Your task to perform on an android device: turn off picture-in-picture Image 0: 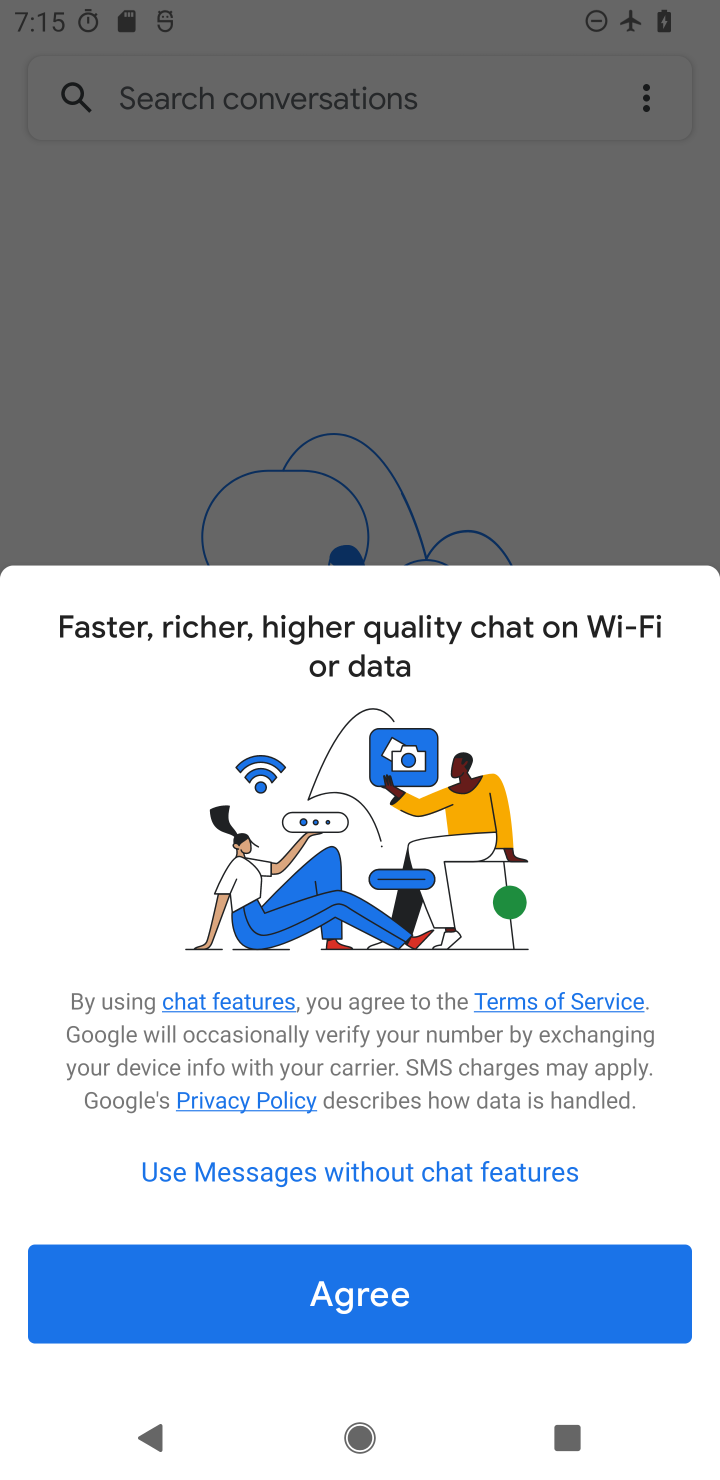
Step 0: press home button
Your task to perform on an android device: turn off picture-in-picture Image 1: 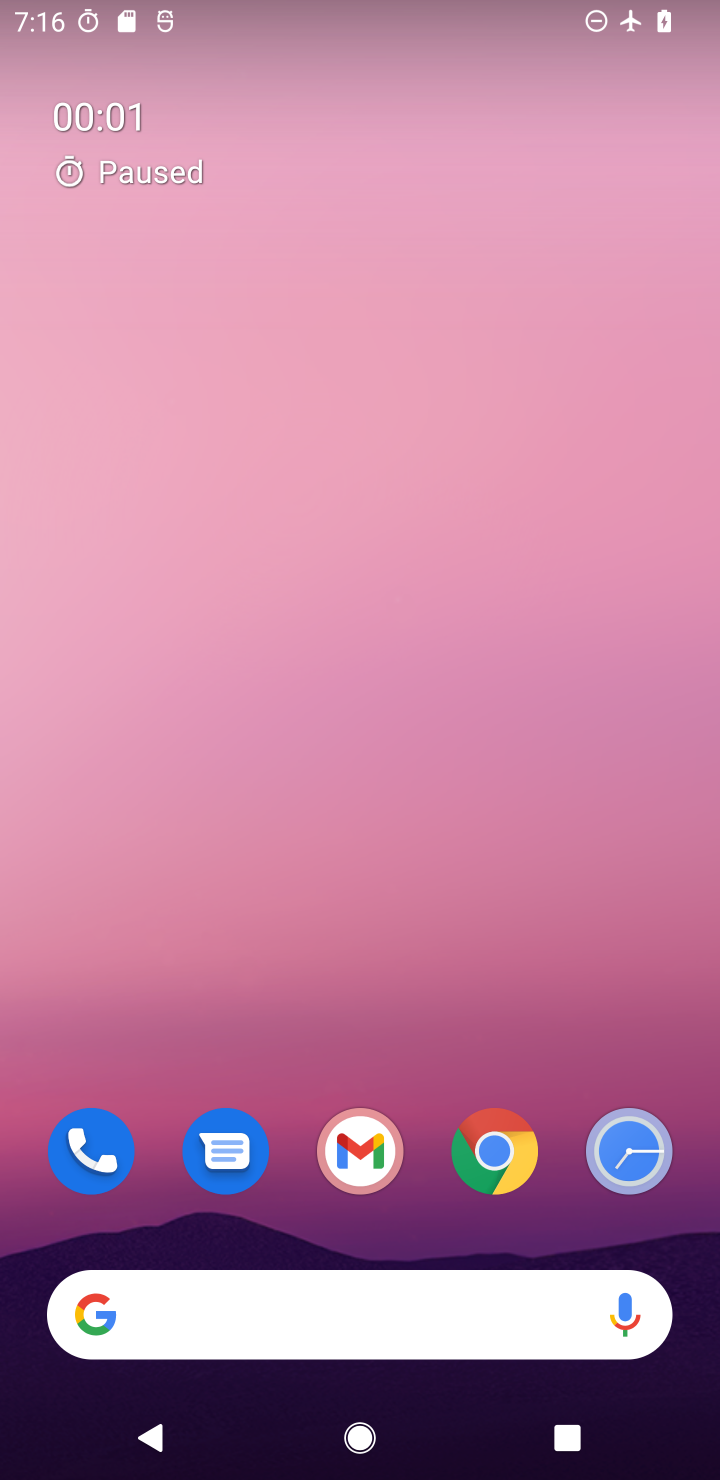
Step 1: click (488, 1154)
Your task to perform on an android device: turn off picture-in-picture Image 2: 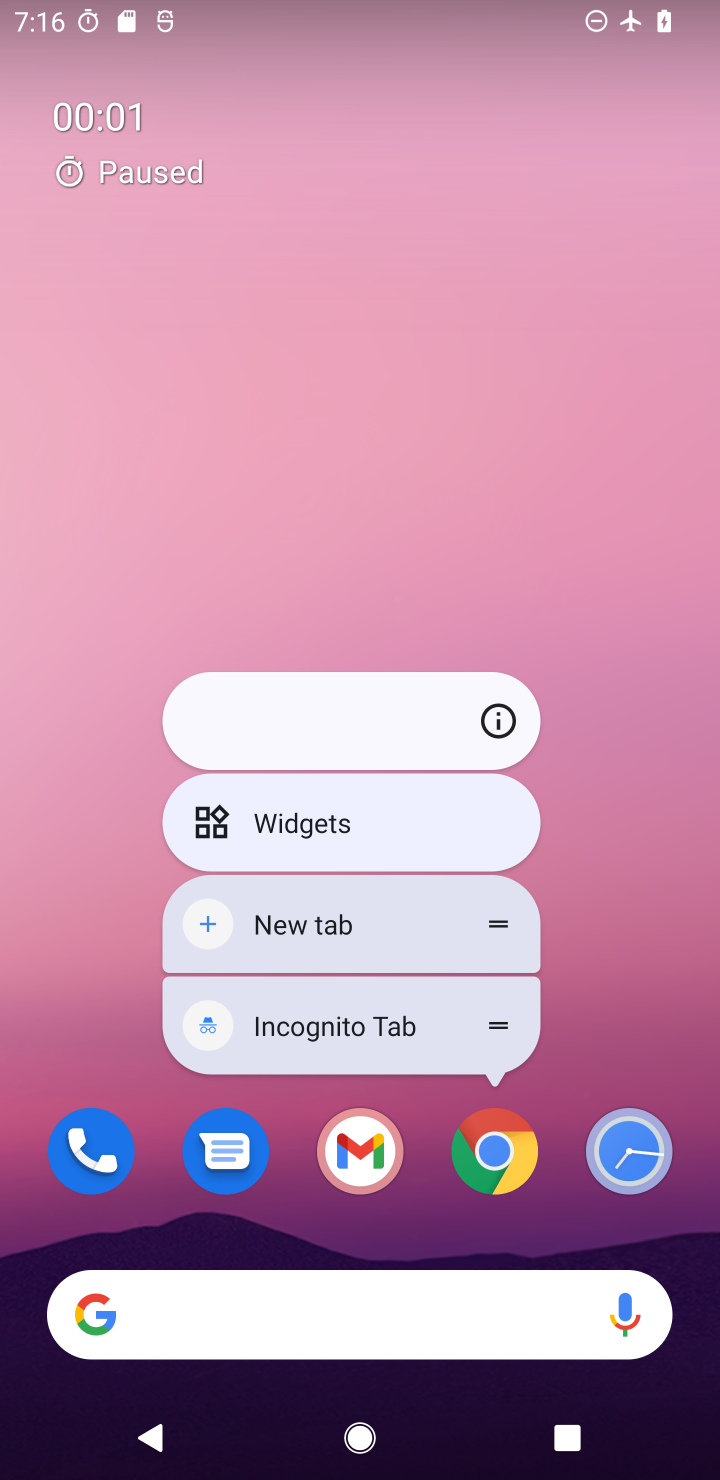
Step 2: click (507, 717)
Your task to perform on an android device: turn off picture-in-picture Image 3: 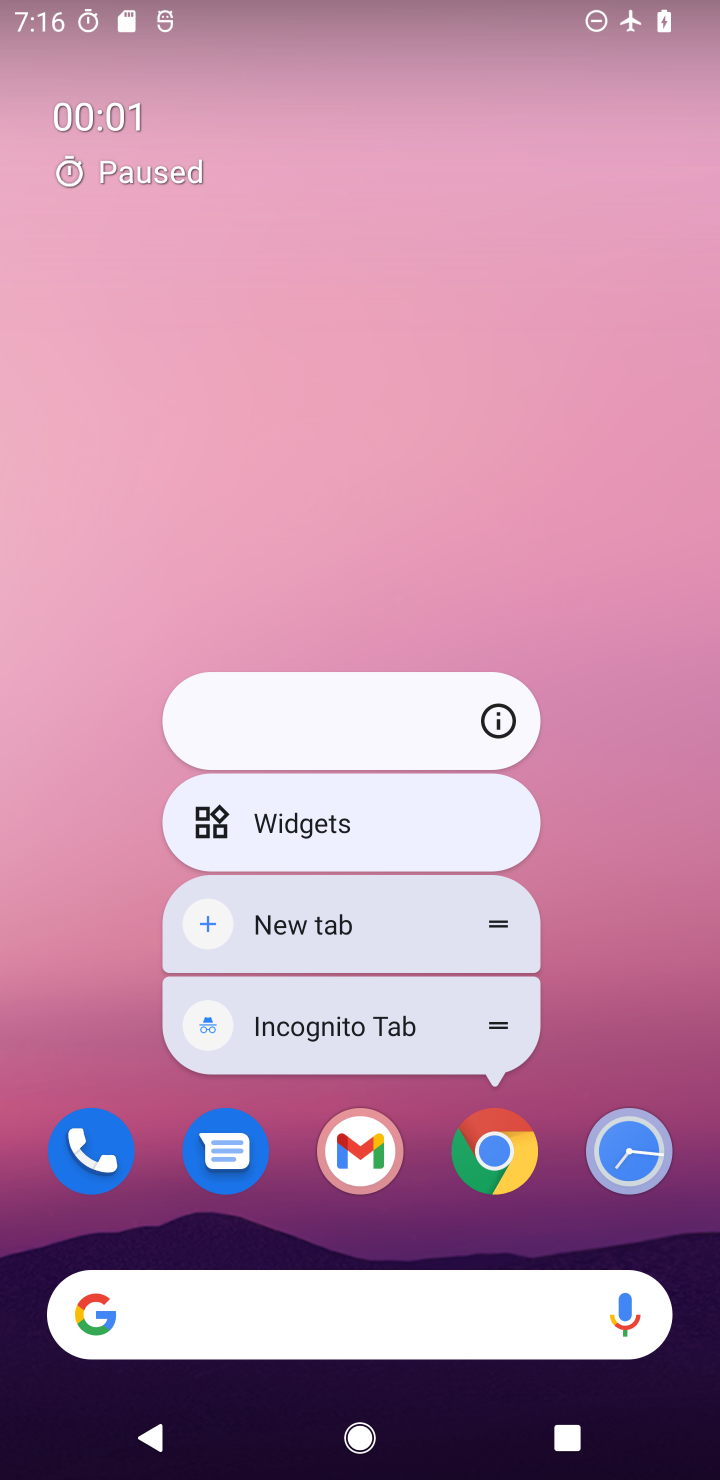
Step 3: click (507, 717)
Your task to perform on an android device: turn off picture-in-picture Image 4: 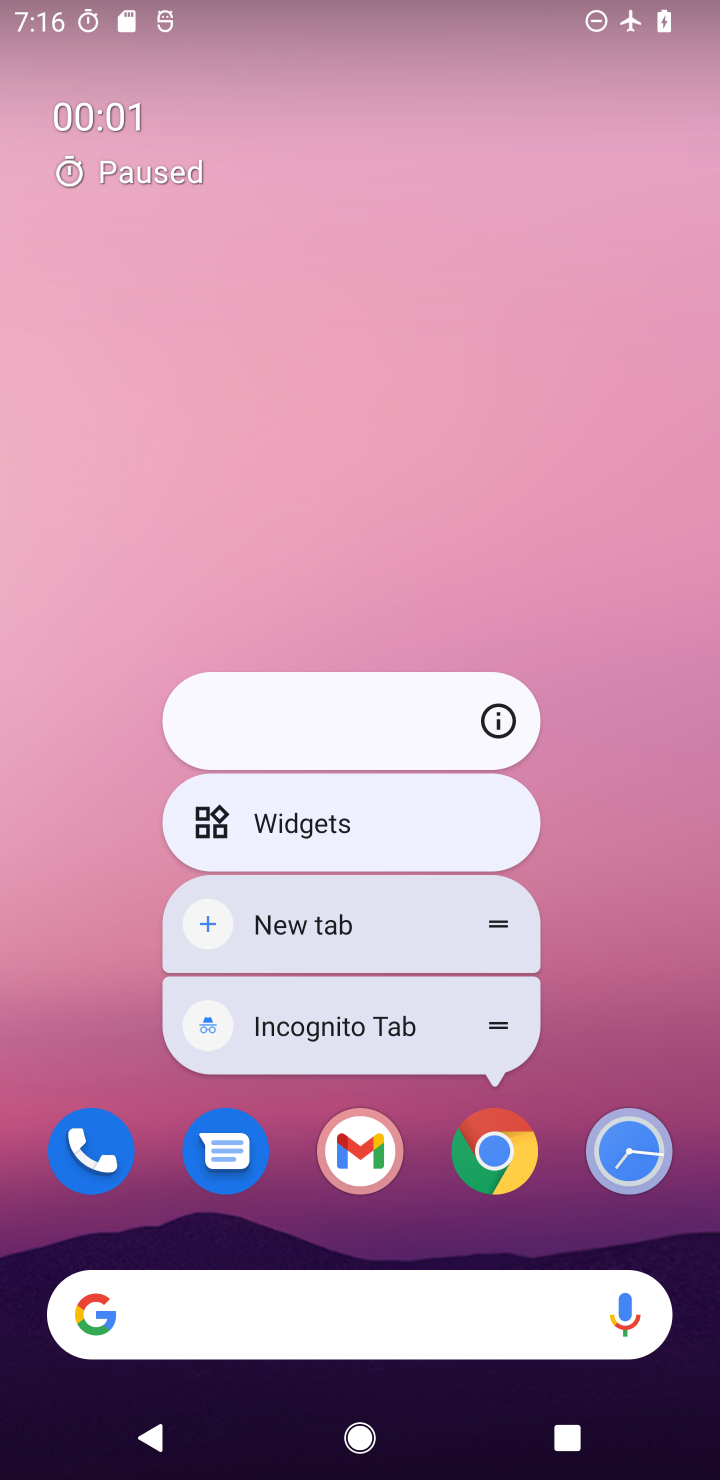
Step 4: click (525, 715)
Your task to perform on an android device: turn off picture-in-picture Image 5: 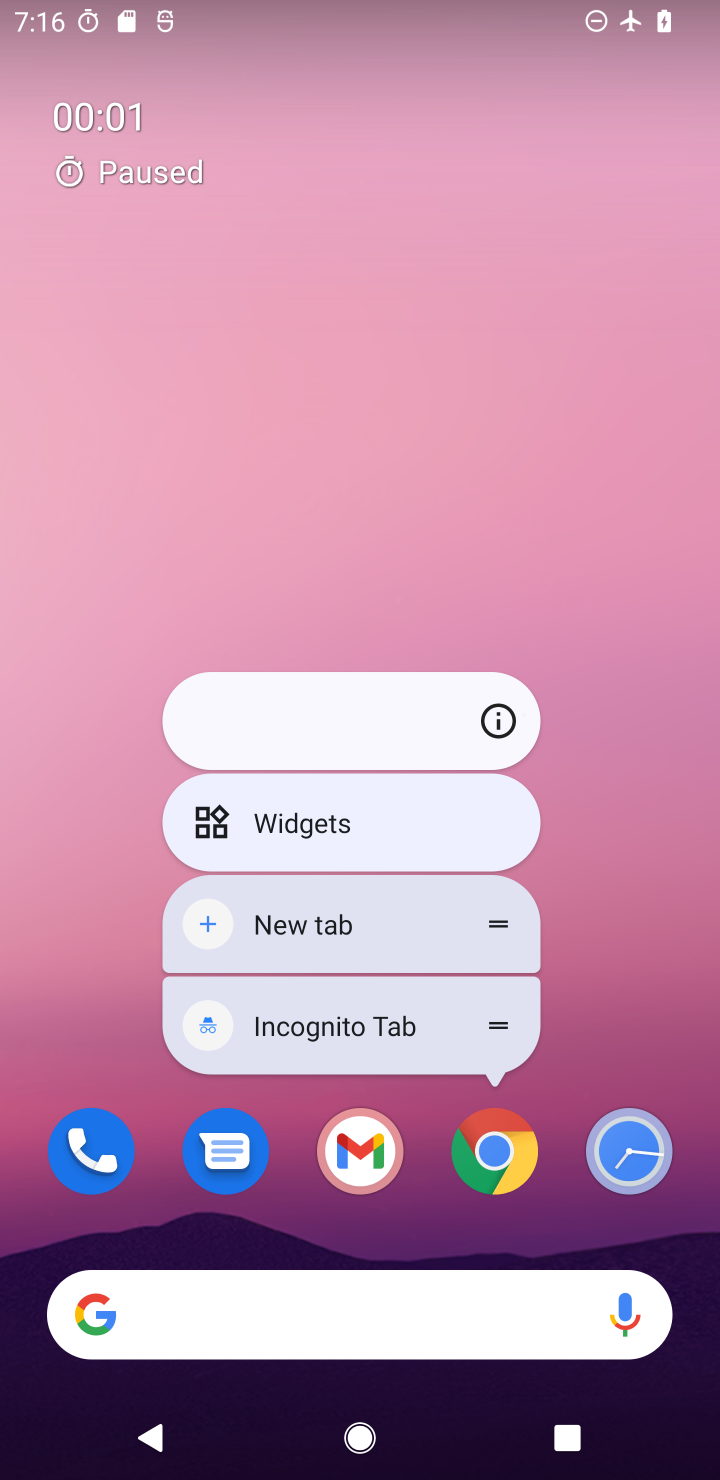
Step 5: click (502, 727)
Your task to perform on an android device: turn off picture-in-picture Image 6: 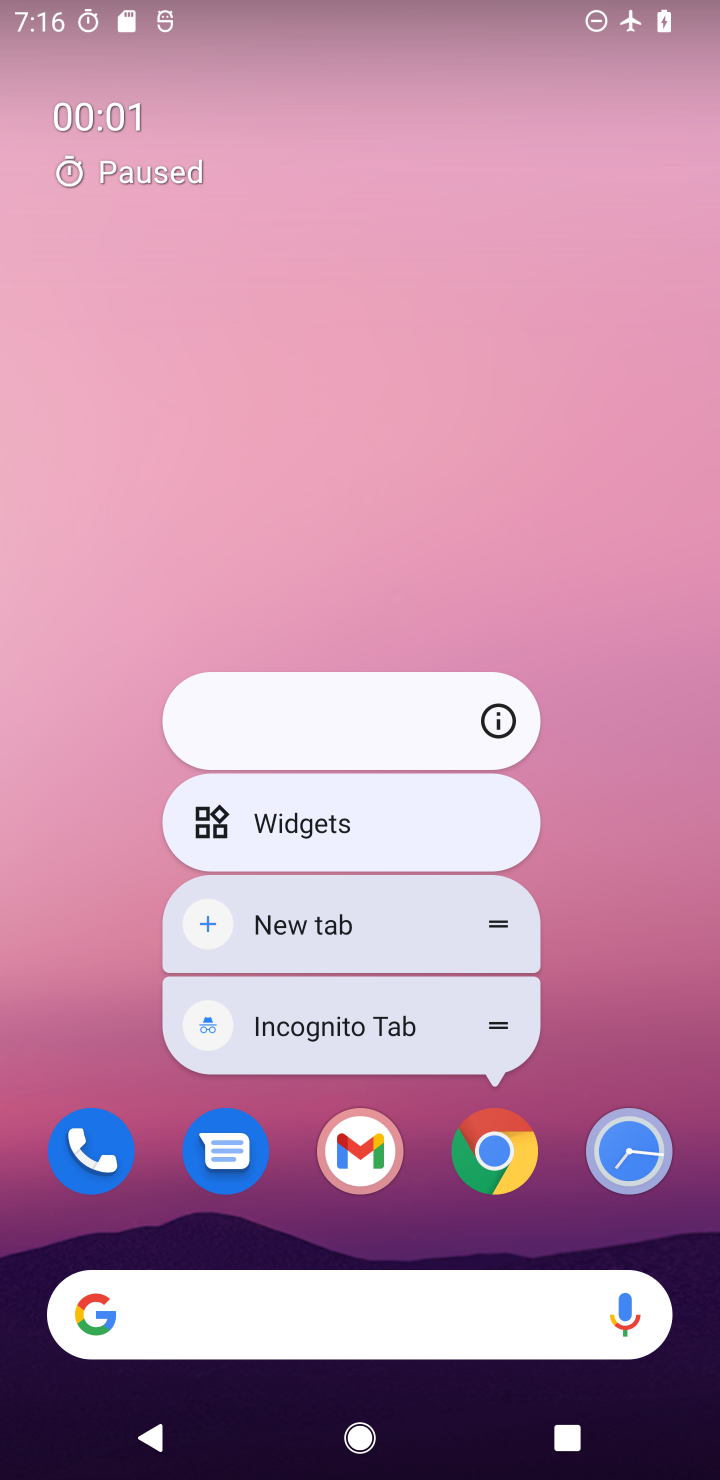
Step 6: click (502, 727)
Your task to perform on an android device: turn off picture-in-picture Image 7: 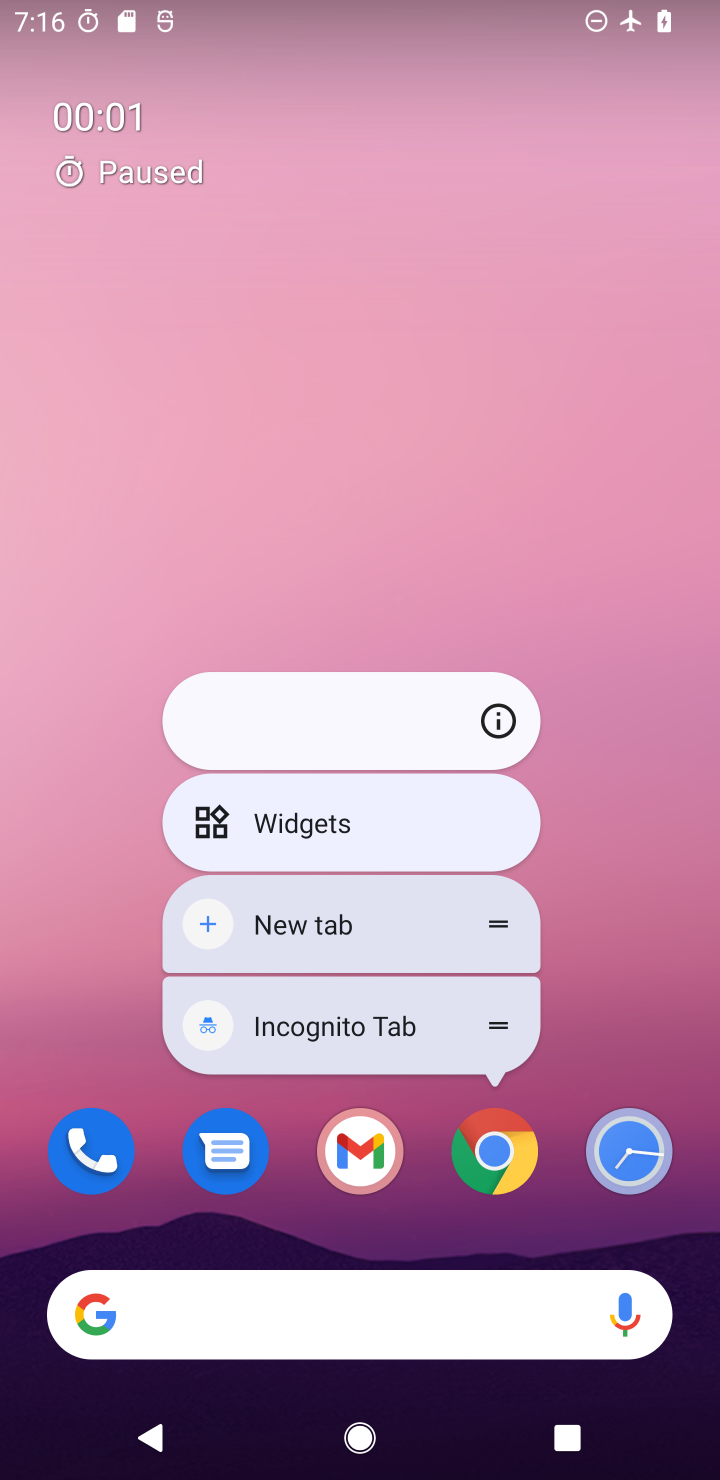
Step 7: click (502, 719)
Your task to perform on an android device: turn off picture-in-picture Image 8: 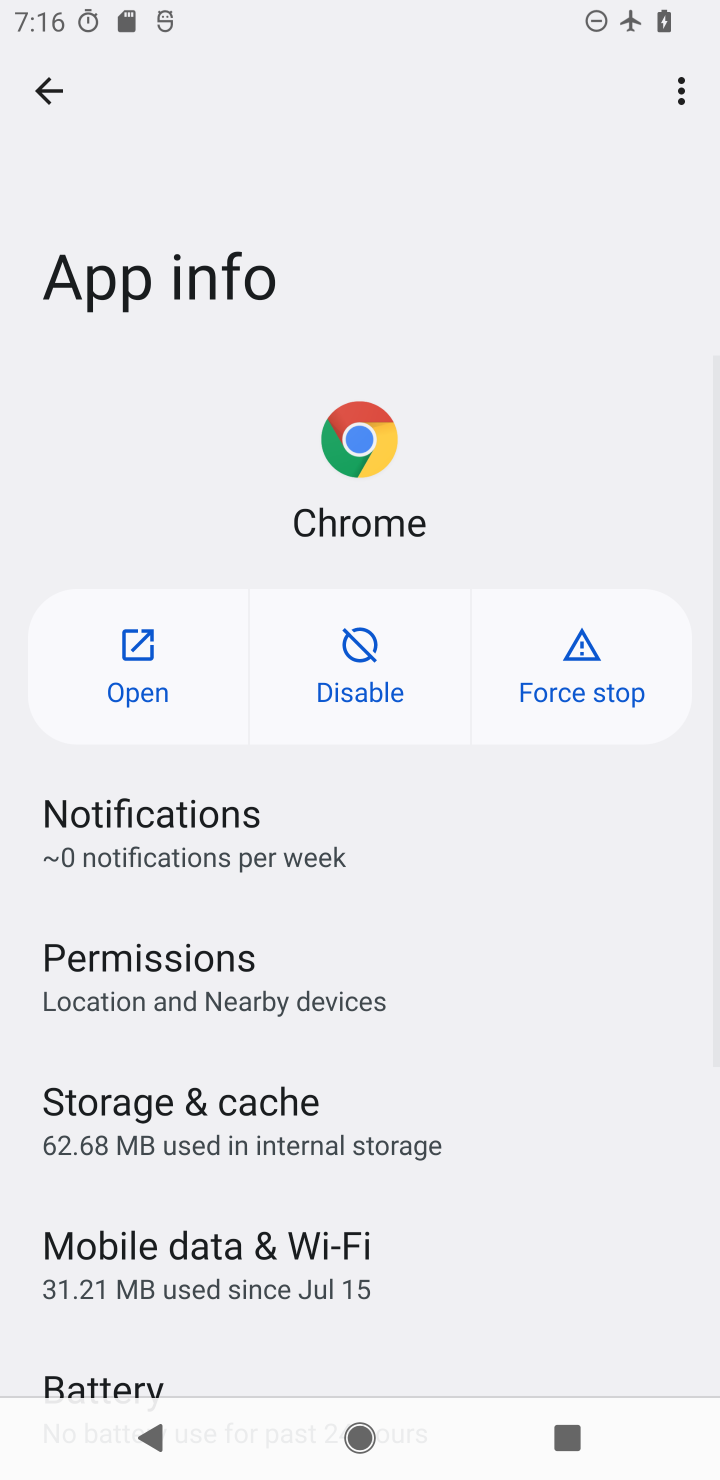
Step 8: drag from (552, 1267) to (552, 30)
Your task to perform on an android device: turn off picture-in-picture Image 9: 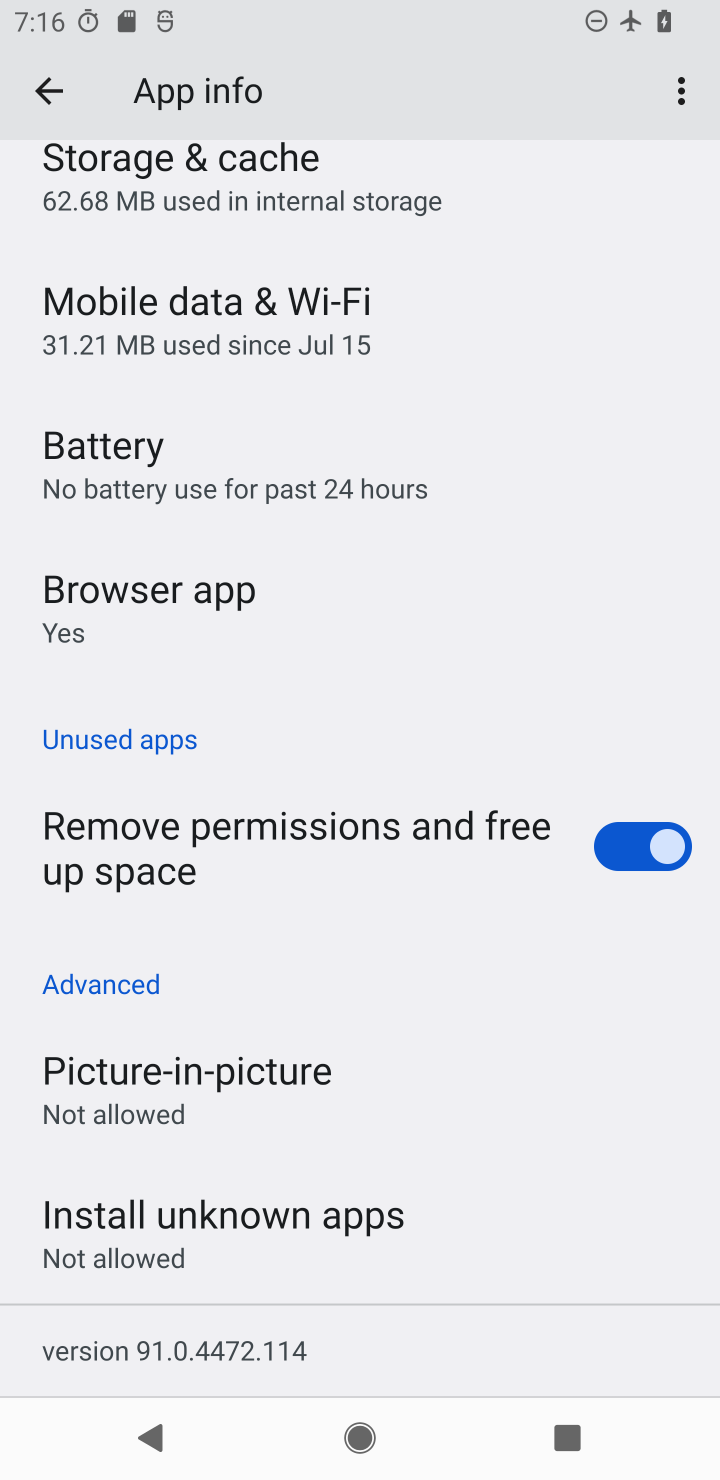
Step 9: click (300, 1086)
Your task to perform on an android device: turn off picture-in-picture Image 10: 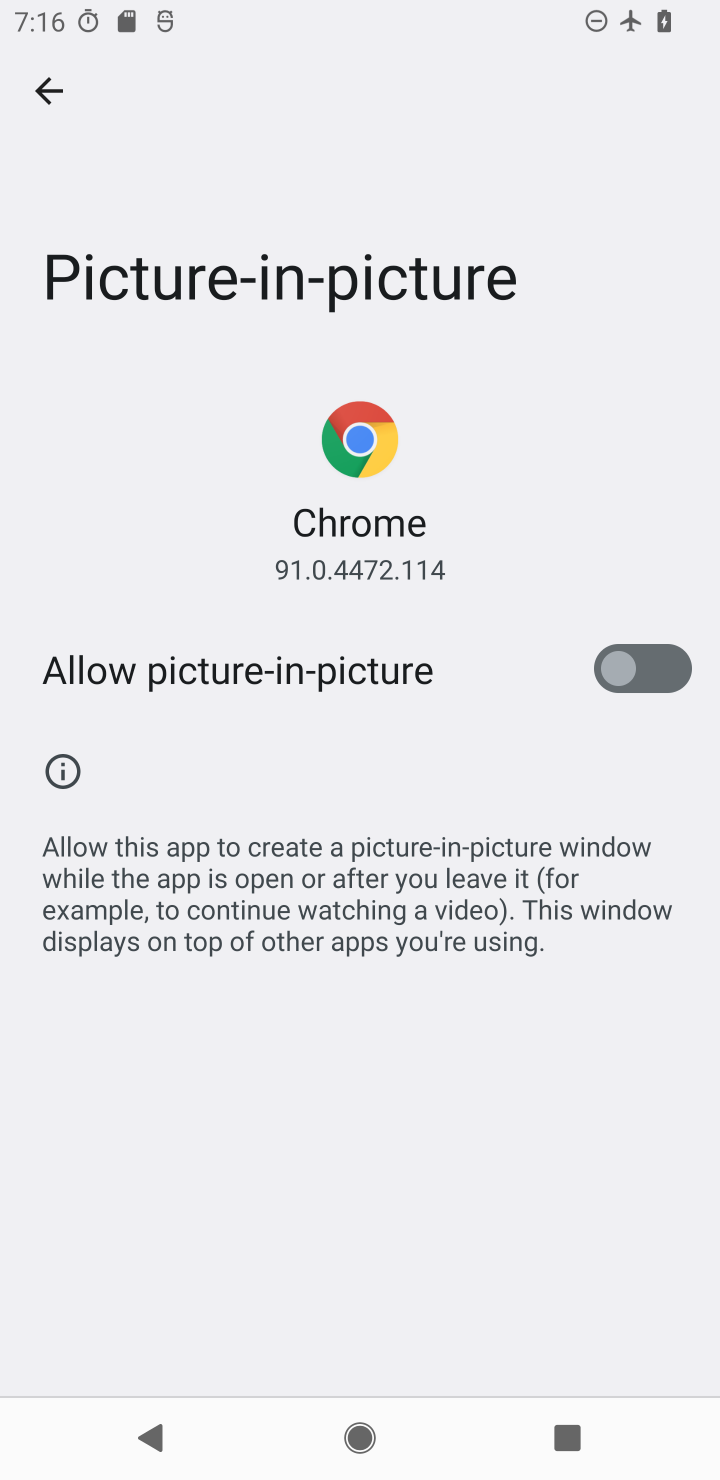
Step 10: task complete